Your task to perform on an android device: check data usage Image 0: 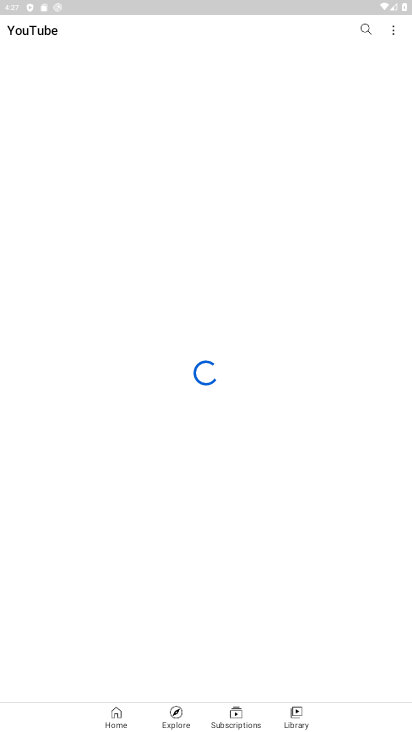
Step 0: drag from (183, 12) to (266, 659)
Your task to perform on an android device: check data usage Image 1: 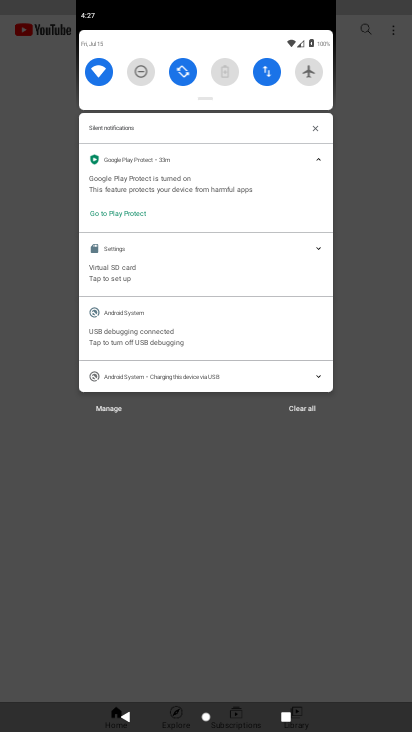
Step 1: click (265, 81)
Your task to perform on an android device: check data usage Image 2: 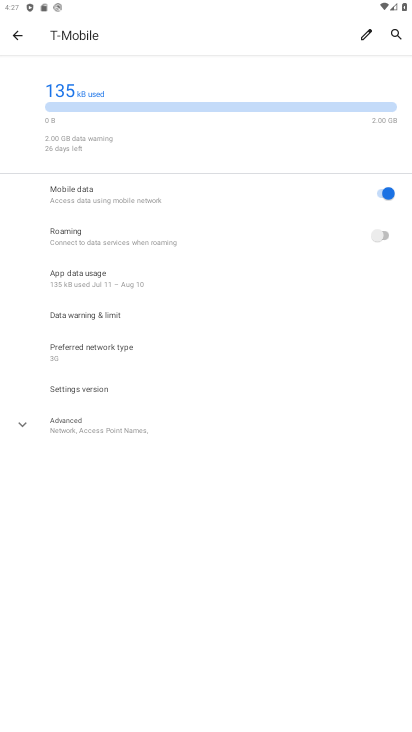
Step 2: task complete